Your task to perform on an android device: Go to Google Image 0: 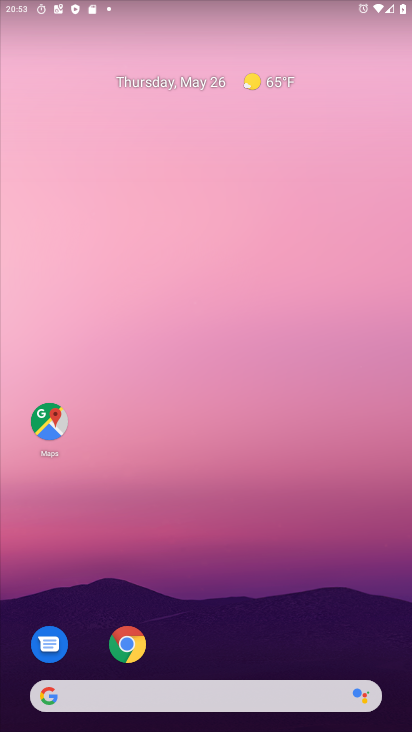
Step 0: drag from (220, 214) to (243, 85)
Your task to perform on an android device: Go to Google Image 1: 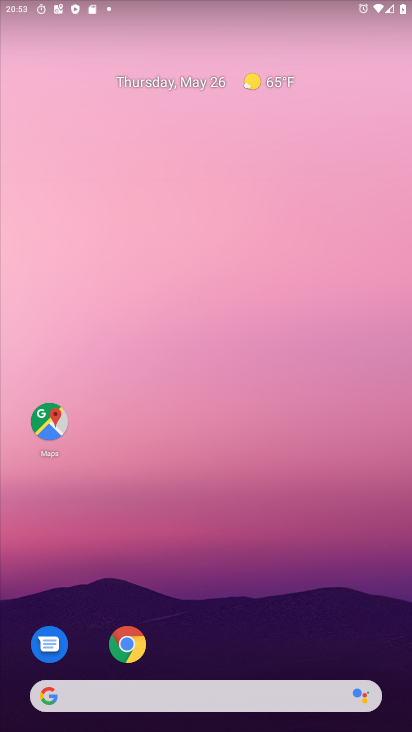
Step 1: drag from (179, 612) to (207, 190)
Your task to perform on an android device: Go to Google Image 2: 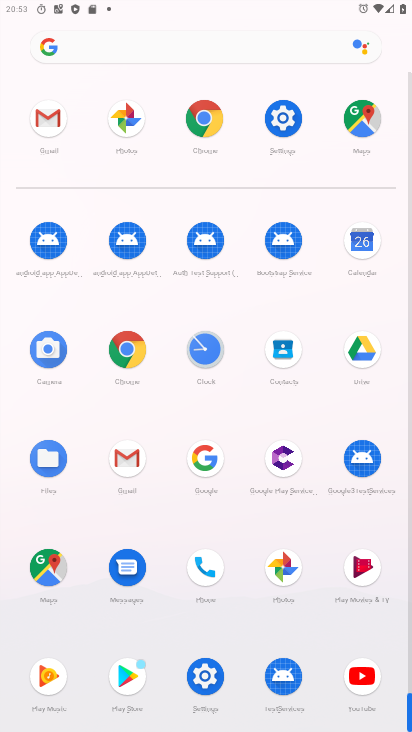
Step 2: click (207, 448)
Your task to perform on an android device: Go to Google Image 3: 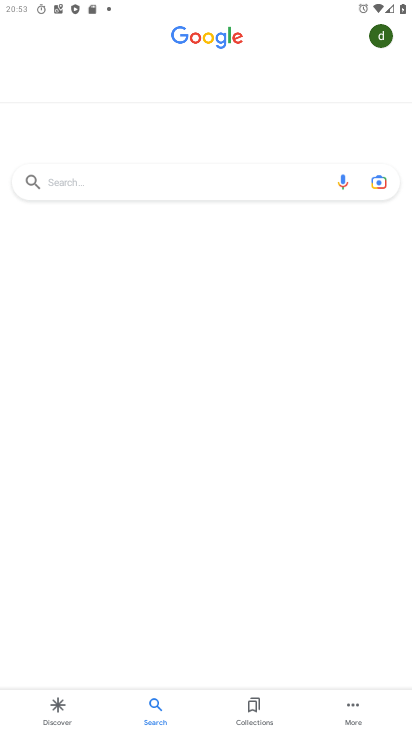
Step 3: task complete